Your task to perform on an android device: open device folders in google photos Image 0: 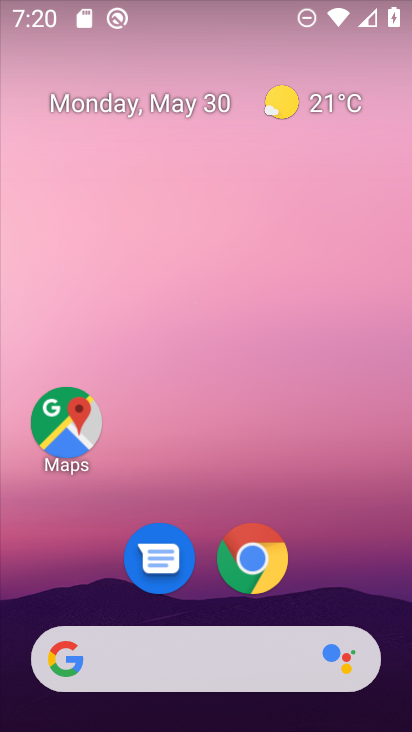
Step 0: drag from (343, 522) to (197, 61)
Your task to perform on an android device: open device folders in google photos Image 1: 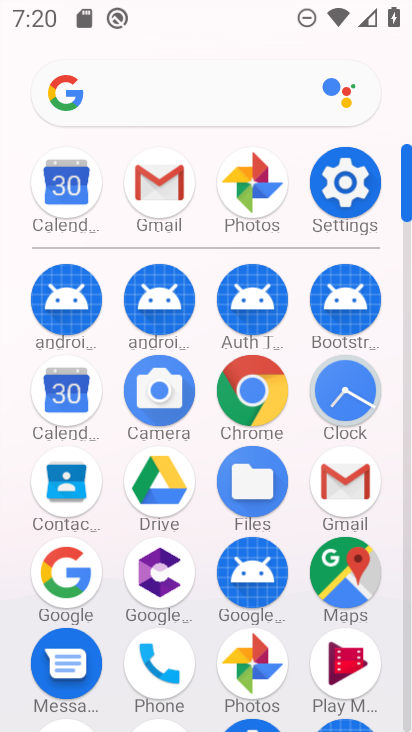
Step 1: click (253, 182)
Your task to perform on an android device: open device folders in google photos Image 2: 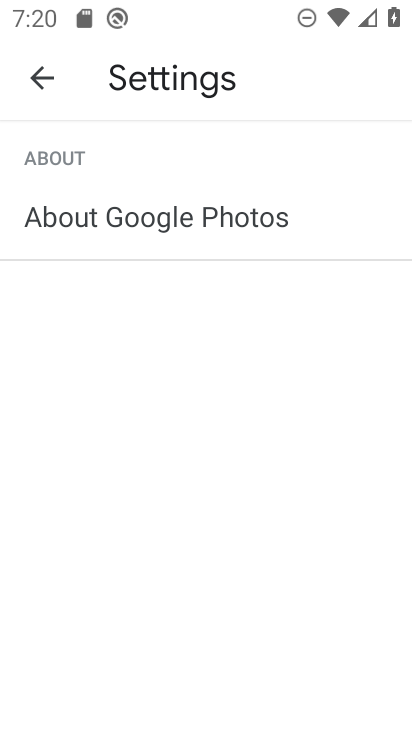
Step 2: click (43, 71)
Your task to perform on an android device: open device folders in google photos Image 3: 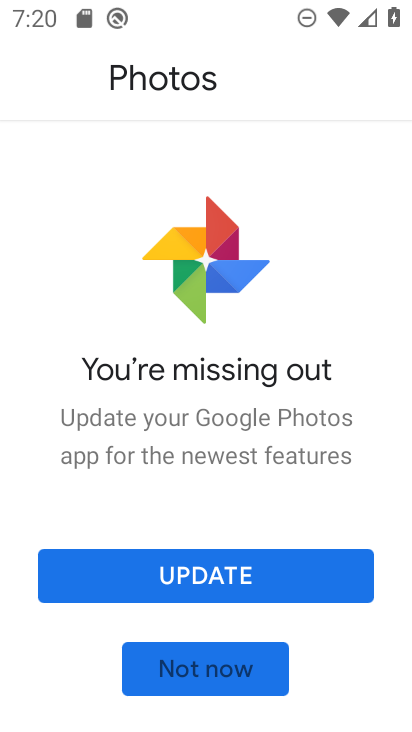
Step 3: click (202, 577)
Your task to perform on an android device: open device folders in google photos Image 4: 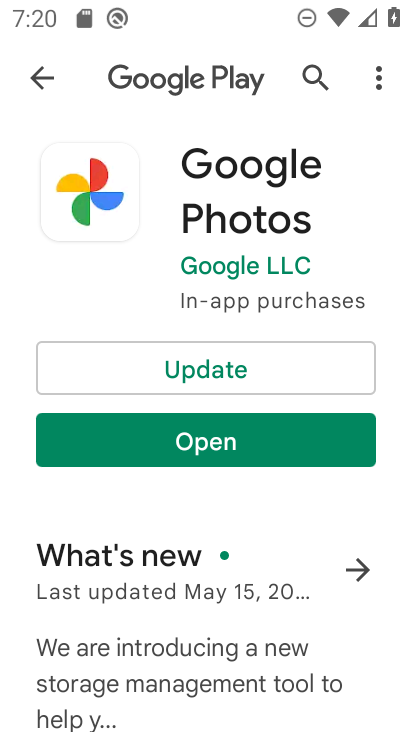
Step 4: click (190, 366)
Your task to perform on an android device: open device folders in google photos Image 5: 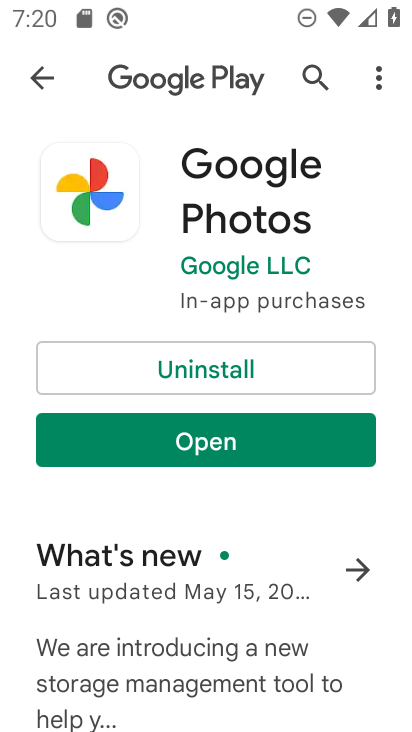
Step 5: click (220, 446)
Your task to perform on an android device: open device folders in google photos Image 6: 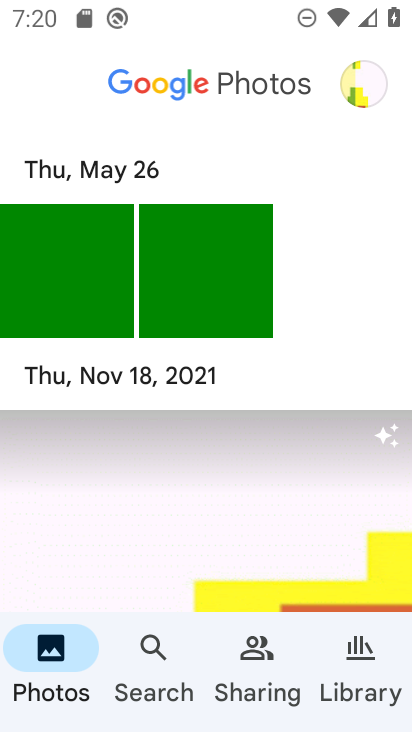
Step 6: click (360, 660)
Your task to perform on an android device: open device folders in google photos Image 7: 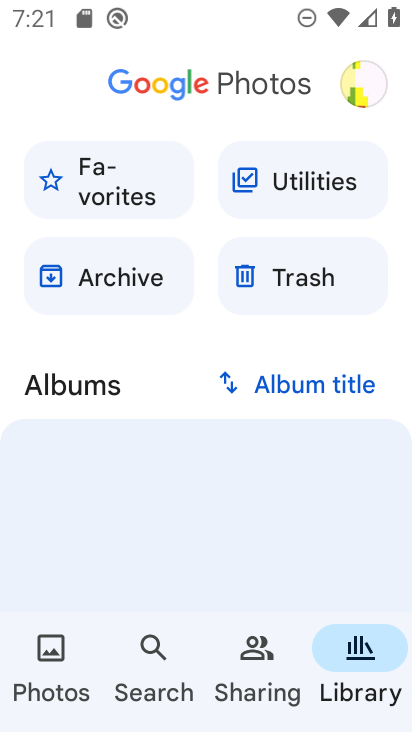
Step 7: click (154, 650)
Your task to perform on an android device: open device folders in google photos Image 8: 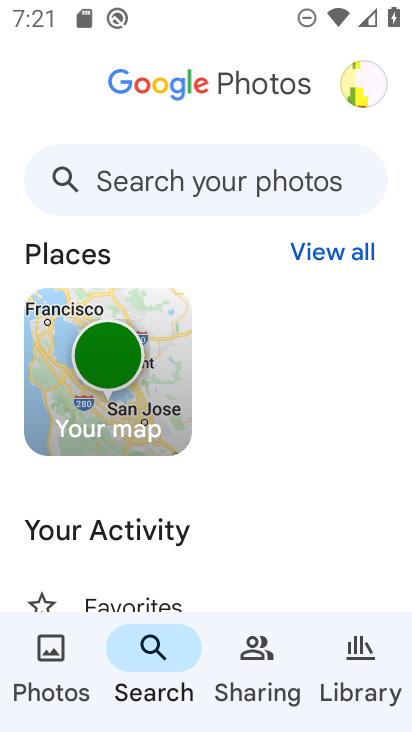
Step 8: click (150, 175)
Your task to perform on an android device: open device folders in google photos Image 9: 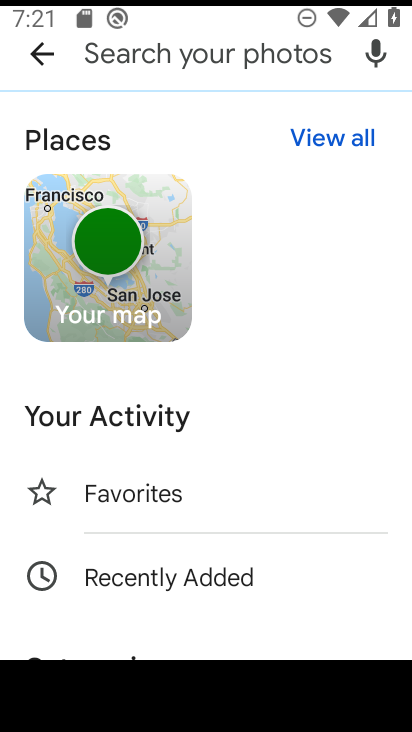
Step 9: type "device"
Your task to perform on an android device: open device folders in google photos Image 10: 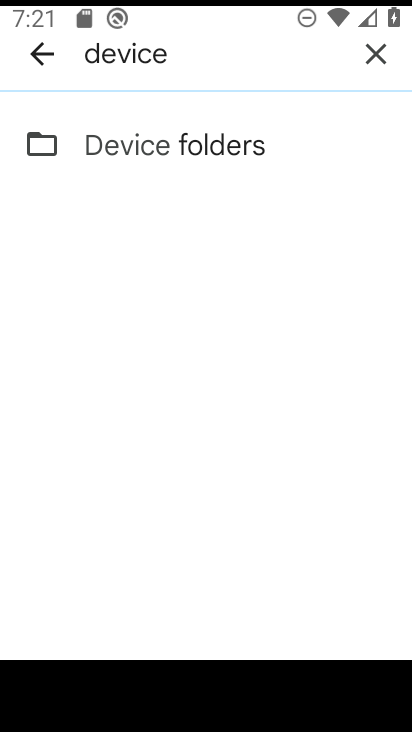
Step 10: click (176, 151)
Your task to perform on an android device: open device folders in google photos Image 11: 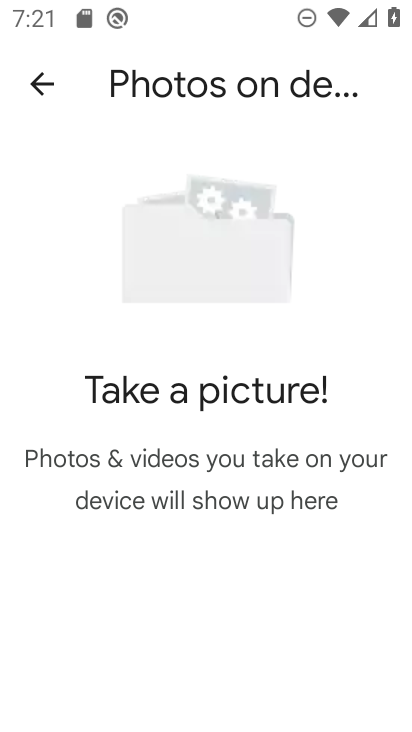
Step 11: task complete